Your task to perform on an android device: Open Maps and search for coffee Image 0: 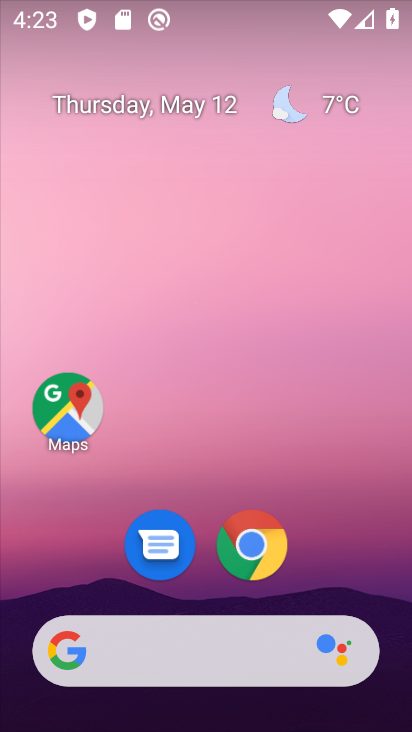
Step 0: click (75, 414)
Your task to perform on an android device: Open Maps and search for coffee Image 1: 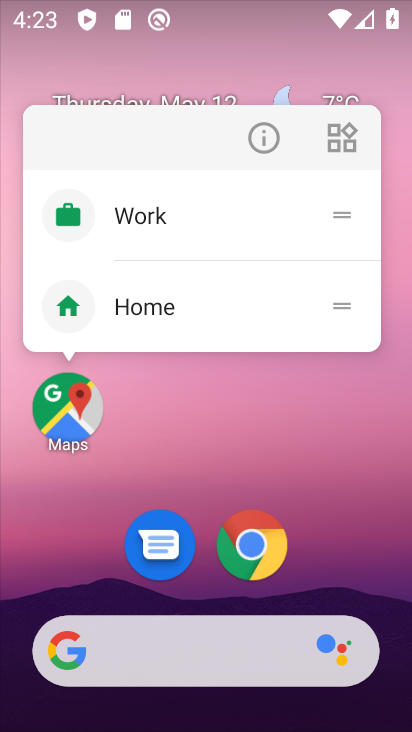
Step 1: click (62, 414)
Your task to perform on an android device: Open Maps and search for coffee Image 2: 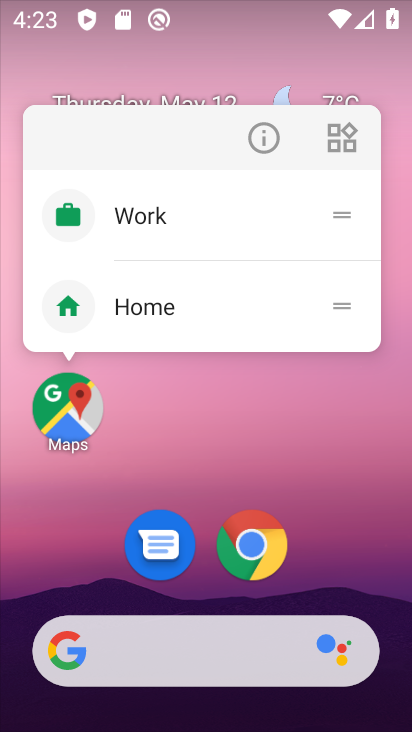
Step 2: click (62, 414)
Your task to perform on an android device: Open Maps and search for coffee Image 3: 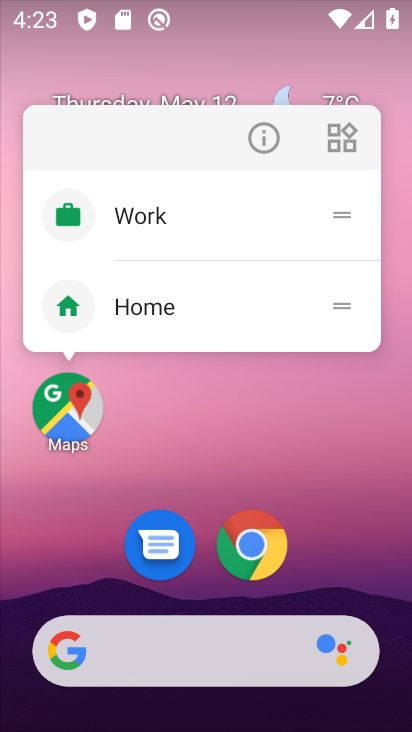
Step 3: drag from (308, 486) to (295, 17)
Your task to perform on an android device: Open Maps and search for coffee Image 4: 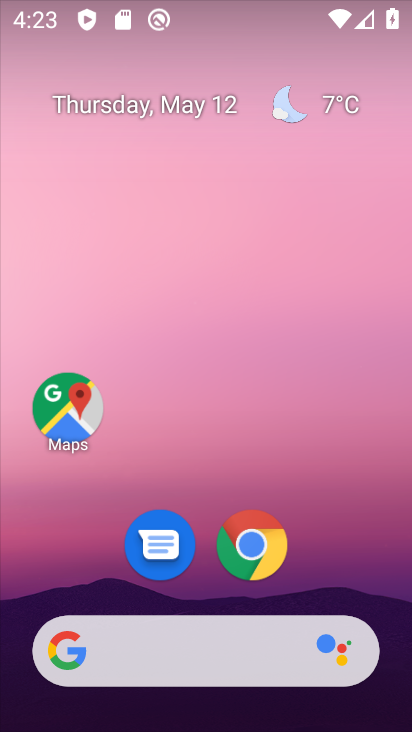
Step 4: drag from (273, 435) to (278, 64)
Your task to perform on an android device: Open Maps and search for coffee Image 5: 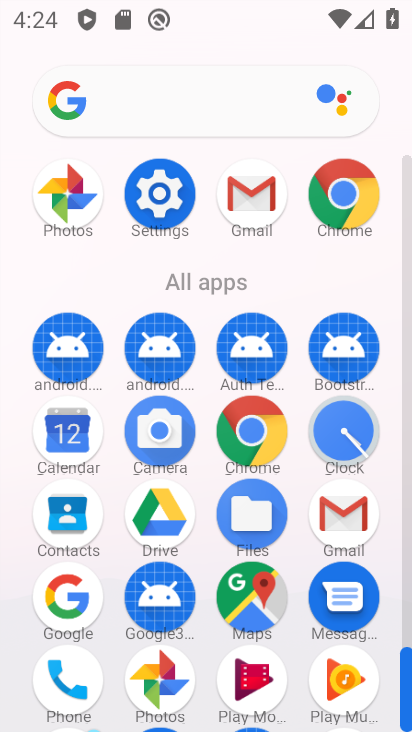
Step 5: click (243, 602)
Your task to perform on an android device: Open Maps and search for coffee Image 6: 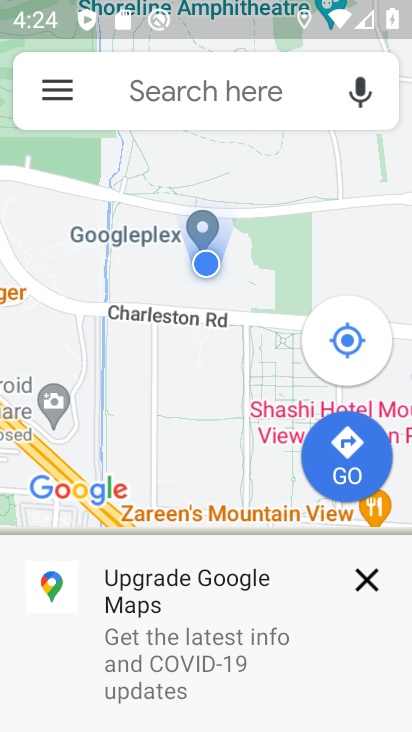
Step 6: click (205, 74)
Your task to perform on an android device: Open Maps and search for coffee Image 7: 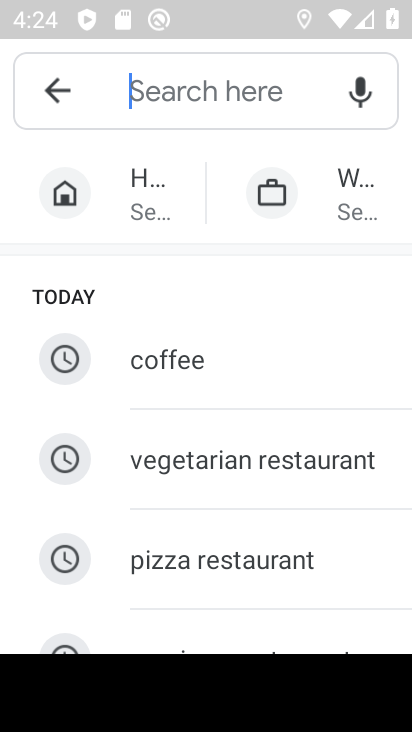
Step 7: type "coffee"
Your task to perform on an android device: Open Maps and search for coffee Image 8: 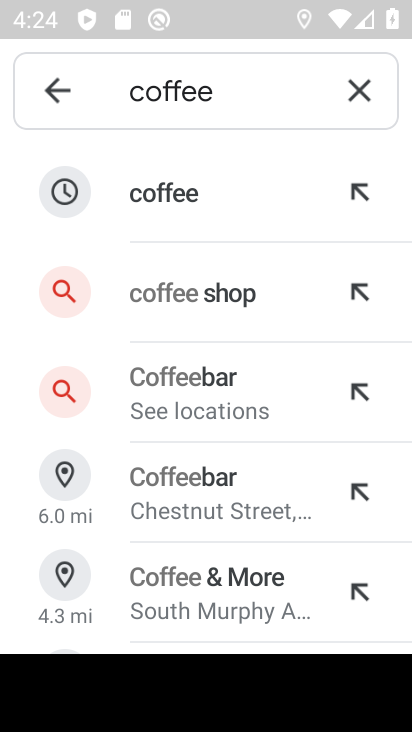
Step 8: click (177, 192)
Your task to perform on an android device: Open Maps and search for coffee Image 9: 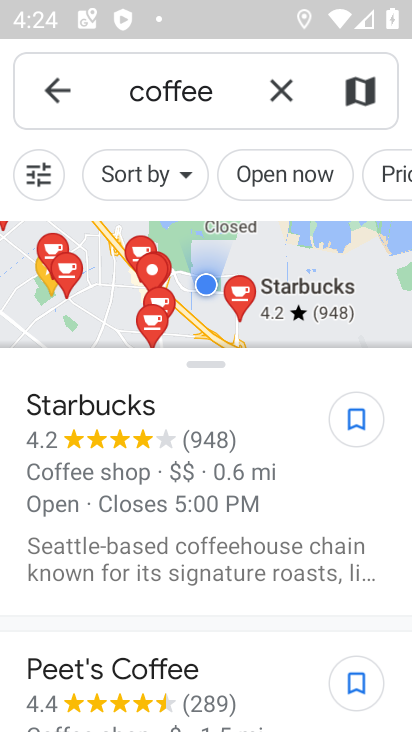
Step 9: task complete